Your task to perform on an android device: star an email in the gmail app Image 0: 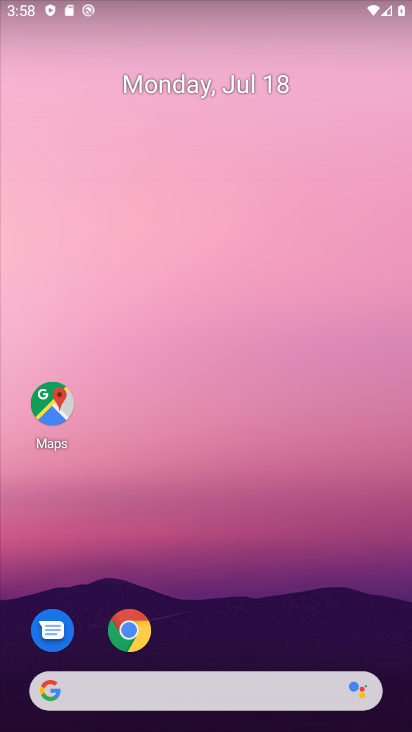
Step 0: drag from (276, 665) to (223, 100)
Your task to perform on an android device: star an email in the gmail app Image 1: 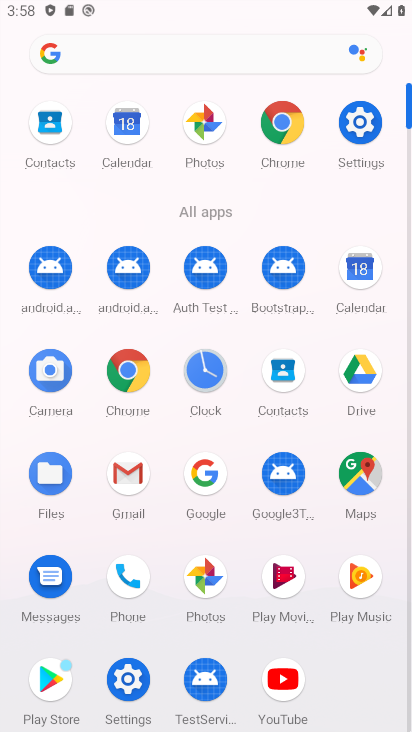
Step 1: click (127, 478)
Your task to perform on an android device: star an email in the gmail app Image 2: 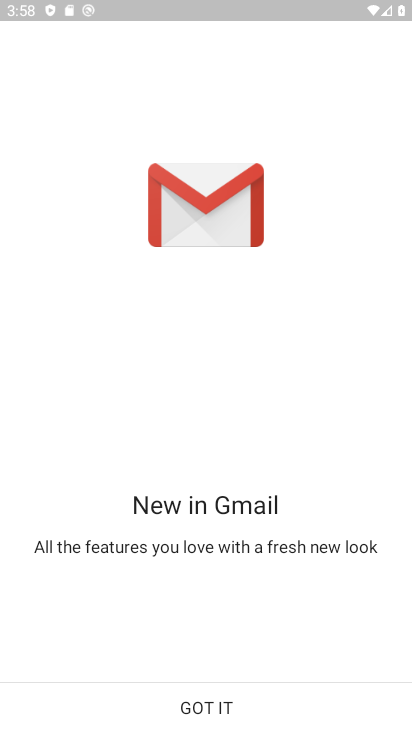
Step 2: click (179, 691)
Your task to perform on an android device: star an email in the gmail app Image 3: 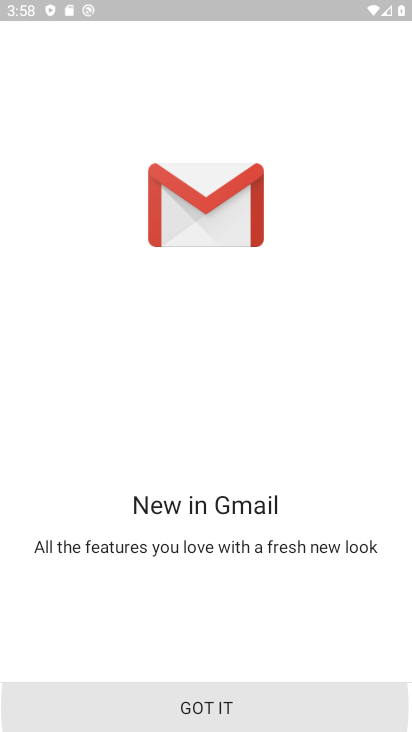
Step 3: click (171, 706)
Your task to perform on an android device: star an email in the gmail app Image 4: 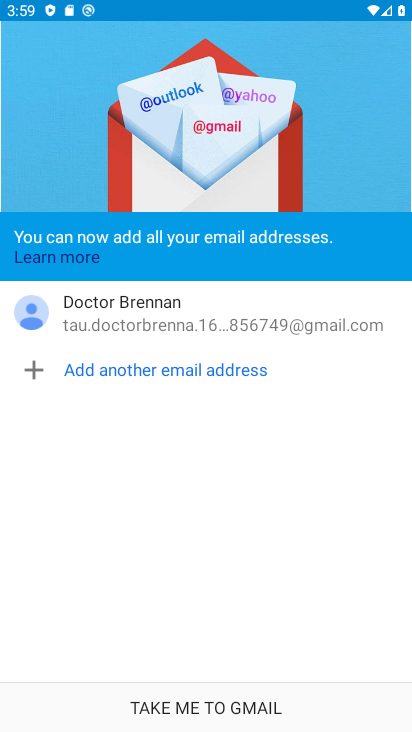
Step 4: click (281, 704)
Your task to perform on an android device: star an email in the gmail app Image 5: 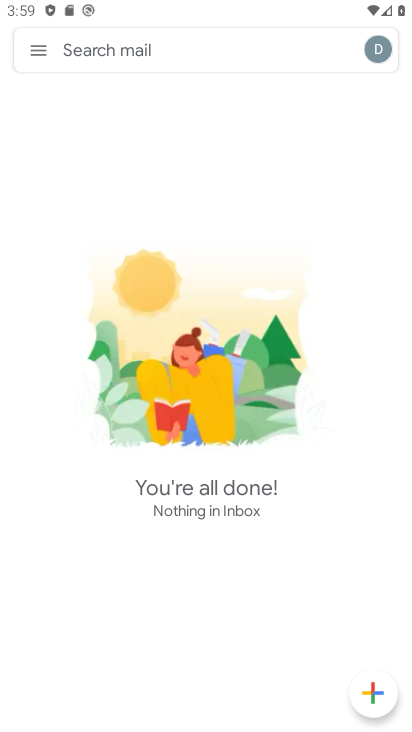
Step 5: click (32, 41)
Your task to perform on an android device: star an email in the gmail app Image 6: 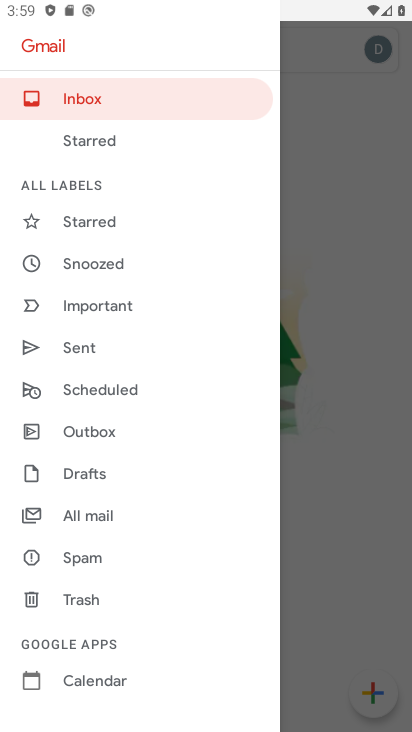
Step 6: click (94, 517)
Your task to perform on an android device: star an email in the gmail app Image 7: 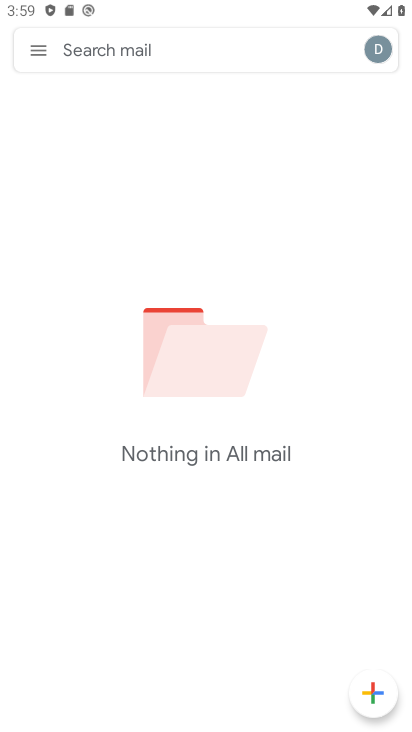
Step 7: task complete